Your task to perform on an android device: turn on sleep mode Image 0: 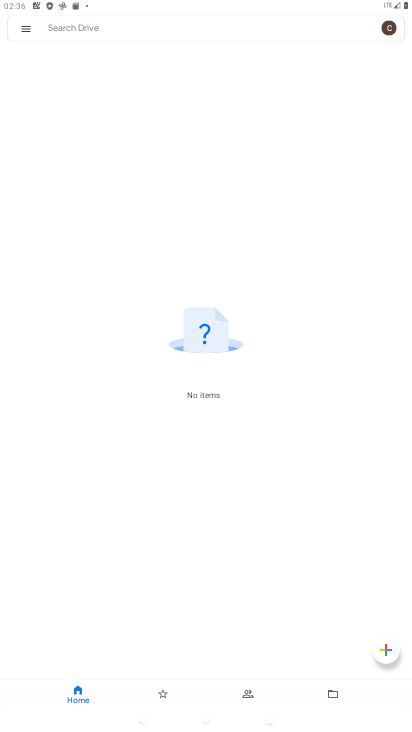
Step 0: press home button
Your task to perform on an android device: turn on sleep mode Image 1: 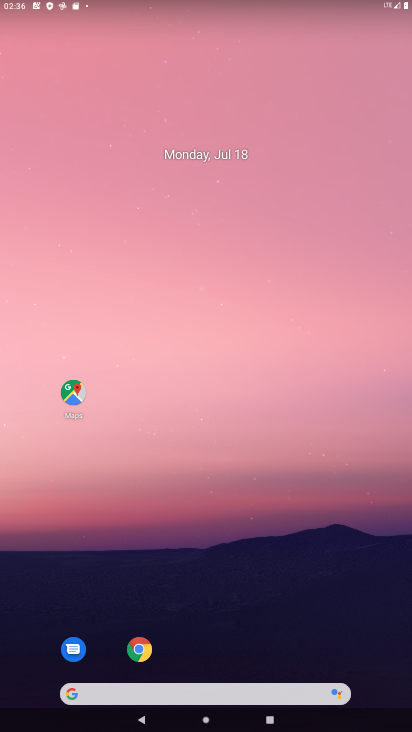
Step 1: drag from (180, 121) to (219, 1)
Your task to perform on an android device: turn on sleep mode Image 2: 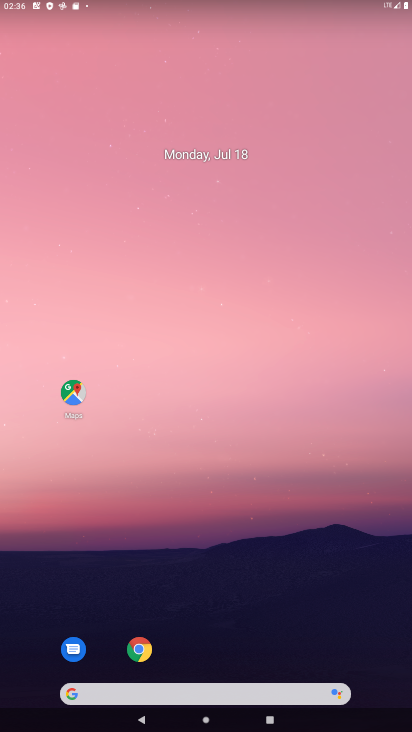
Step 2: drag from (172, 592) to (224, 37)
Your task to perform on an android device: turn on sleep mode Image 3: 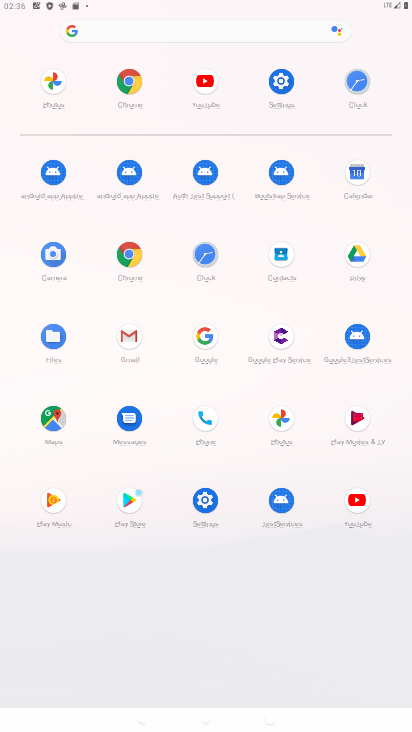
Step 3: click (291, 92)
Your task to perform on an android device: turn on sleep mode Image 4: 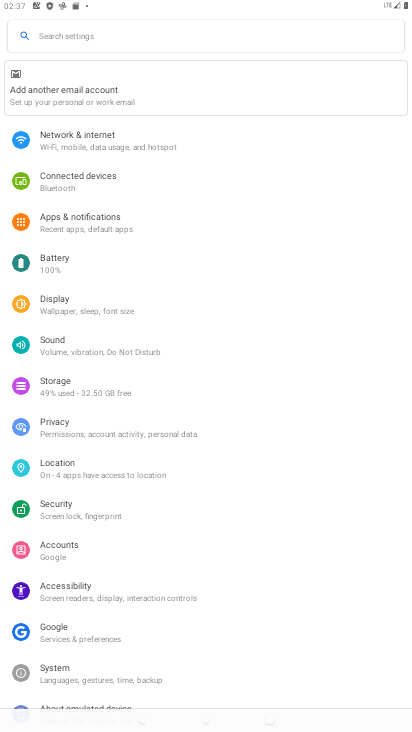
Step 4: click (103, 310)
Your task to perform on an android device: turn on sleep mode Image 5: 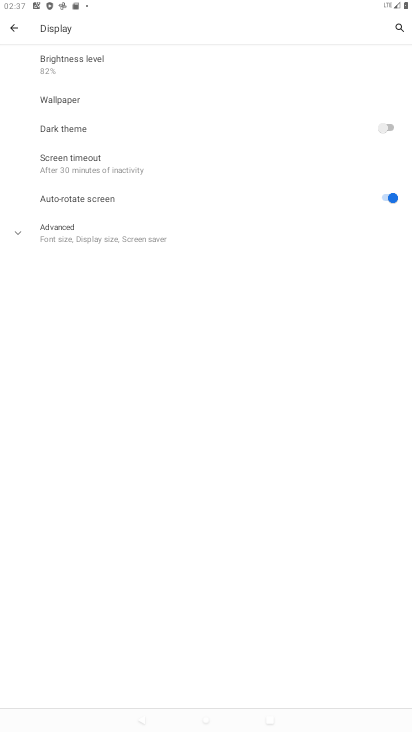
Step 5: task complete